Your task to perform on an android device: Go to CNN.com Image 0: 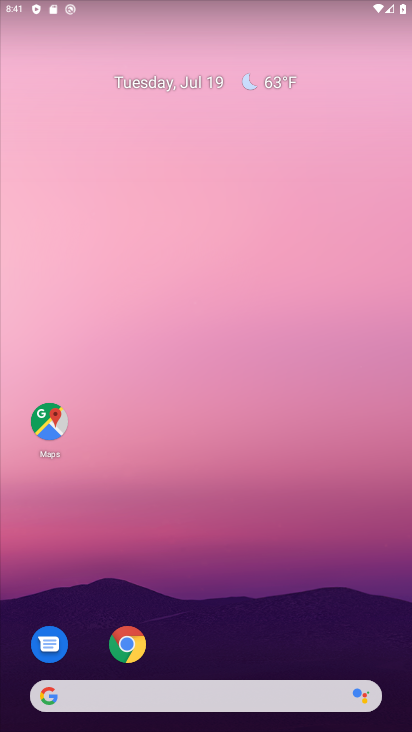
Step 0: drag from (200, 664) to (200, 236)
Your task to perform on an android device: Go to CNN.com Image 1: 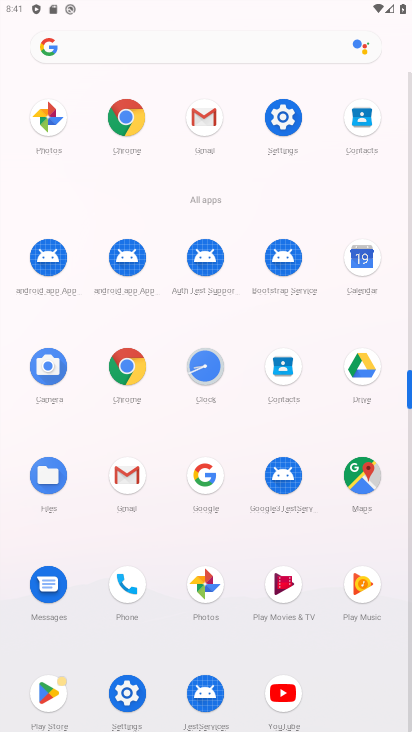
Step 1: click (126, 114)
Your task to perform on an android device: Go to CNN.com Image 2: 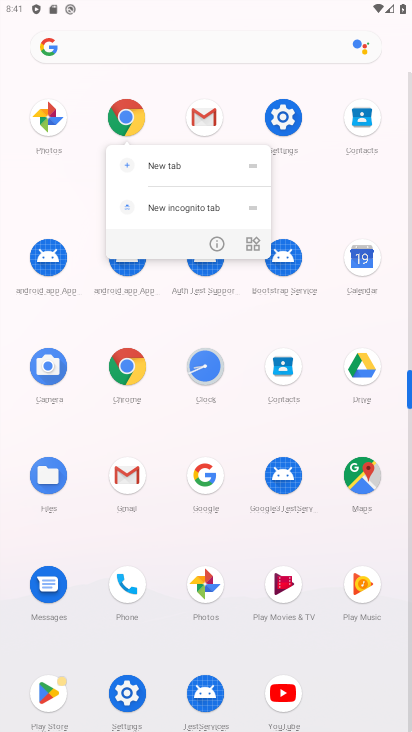
Step 2: click (128, 116)
Your task to perform on an android device: Go to CNN.com Image 3: 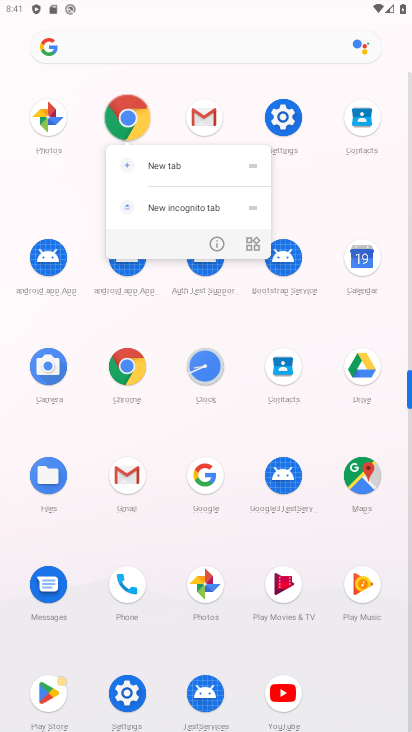
Step 3: click (128, 113)
Your task to perform on an android device: Go to CNN.com Image 4: 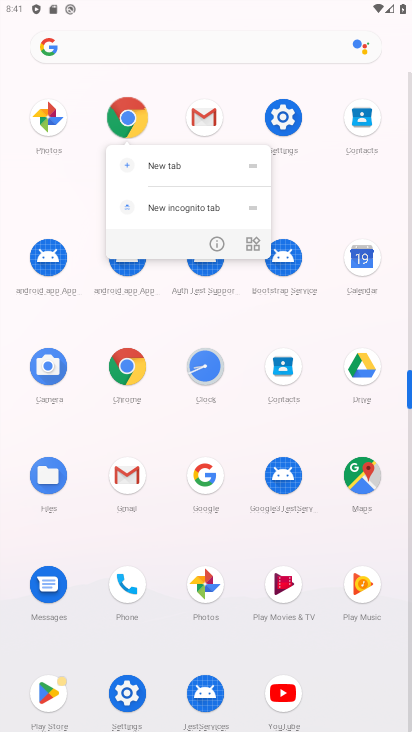
Step 4: click (128, 114)
Your task to perform on an android device: Go to CNN.com Image 5: 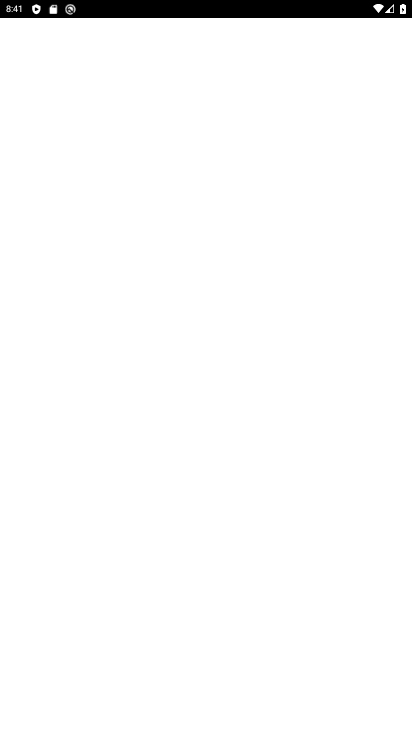
Step 5: click (130, 121)
Your task to perform on an android device: Go to CNN.com Image 6: 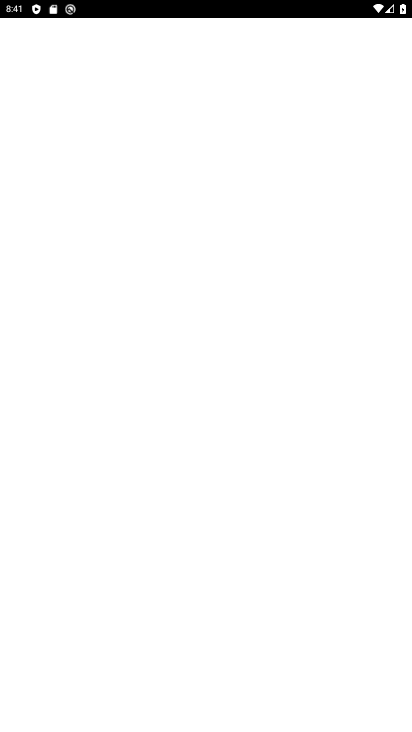
Step 6: click (130, 121)
Your task to perform on an android device: Go to CNN.com Image 7: 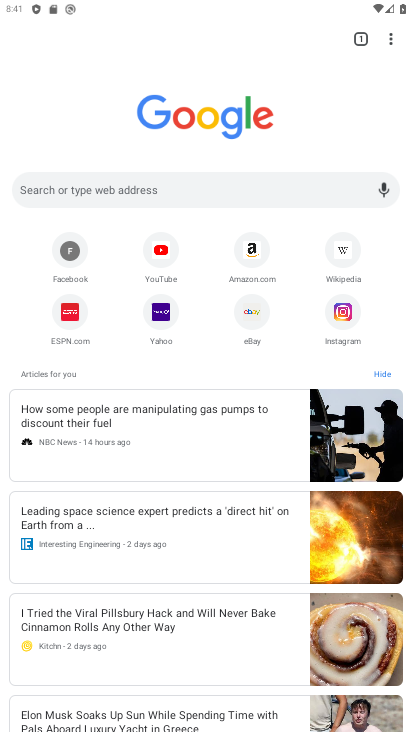
Step 7: click (110, 184)
Your task to perform on an android device: Go to CNN.com Image 8: 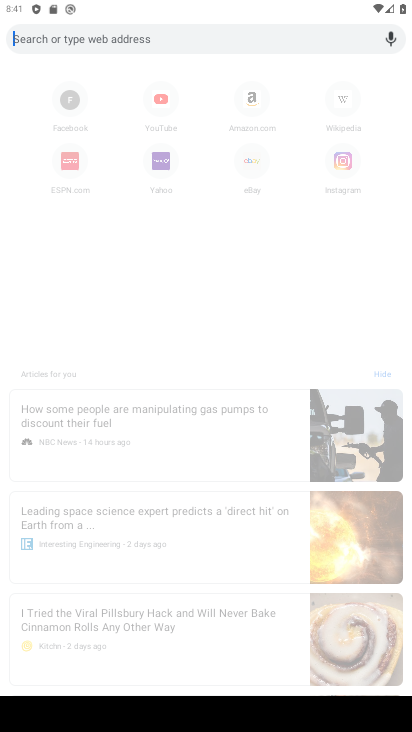
Step 8: type "CNN.com"
Your task to perform on an android device: Go to CNN.com Image 9: 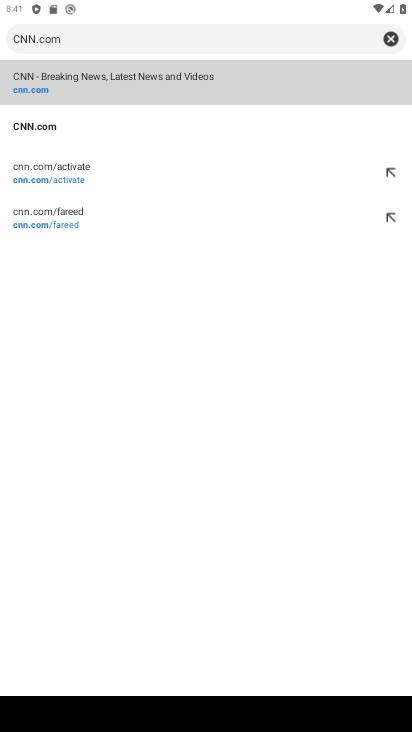
Step 9: click (152, 81)
Your task to perform on an android device: Go to CNN.com Image 10: 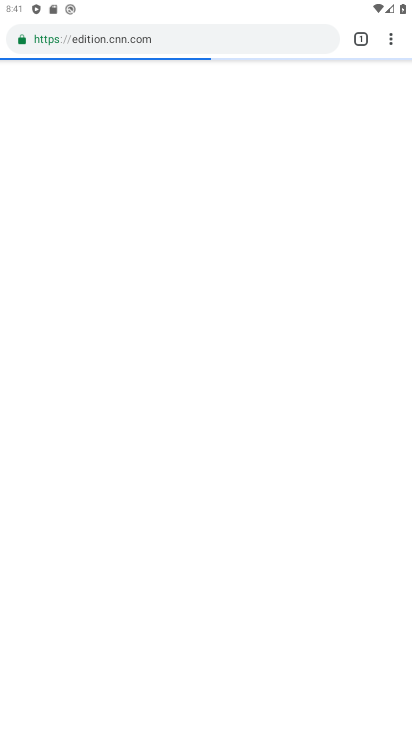
Step 10: task complete